Your task to perform on an android device: Go to wifi settings Image 0: 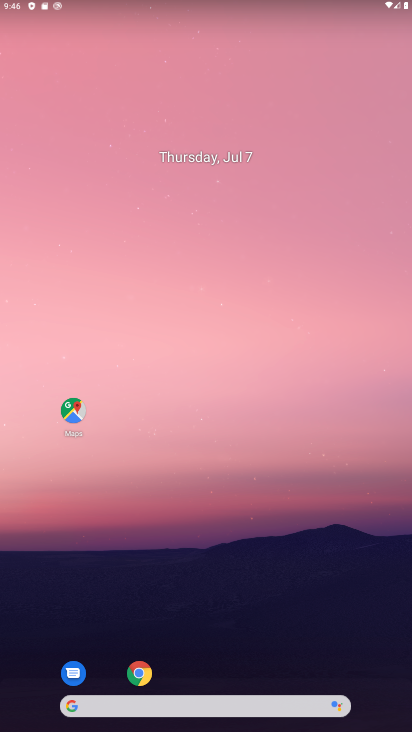
Step 0: click (143, 673)
Your task to perform on an android device: Go to wifi settings Image 1: 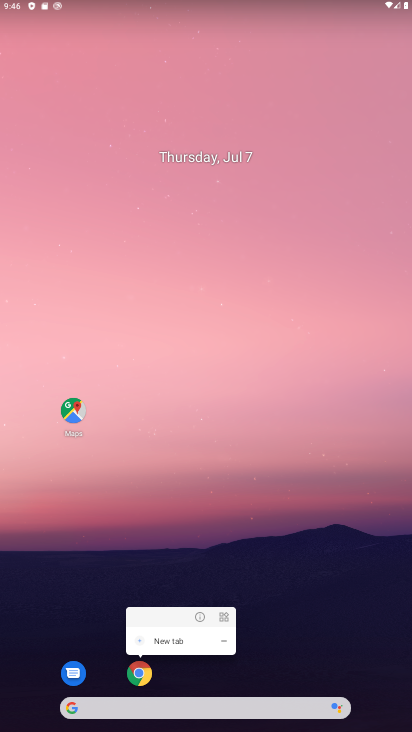
Step 1: click (141, 669)
Your task to perform on an android device: Go to wifi settings Image 2: 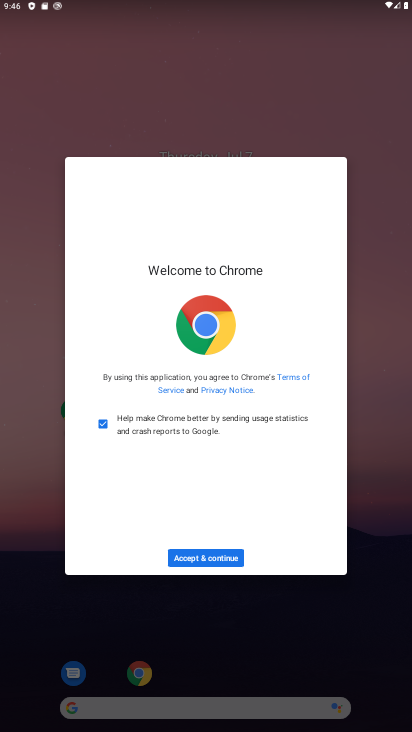
Step 2: click (221, 567)
Your task to perform on an android device: Go to wifi settings Image 3: 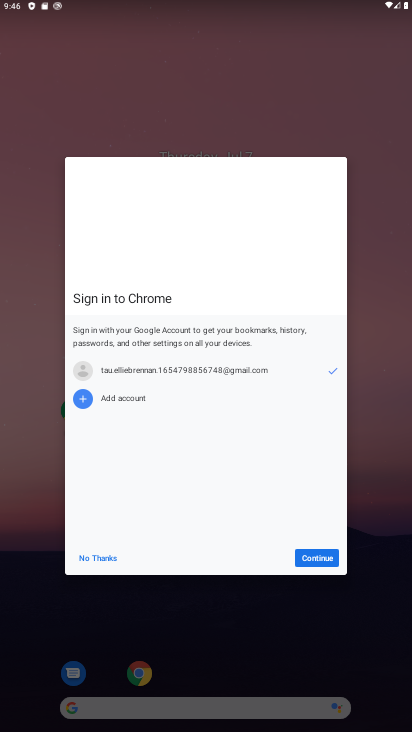
Step 3: click (325, 555)
Your task to perform on an android device: Go to wifi settings Image 4: 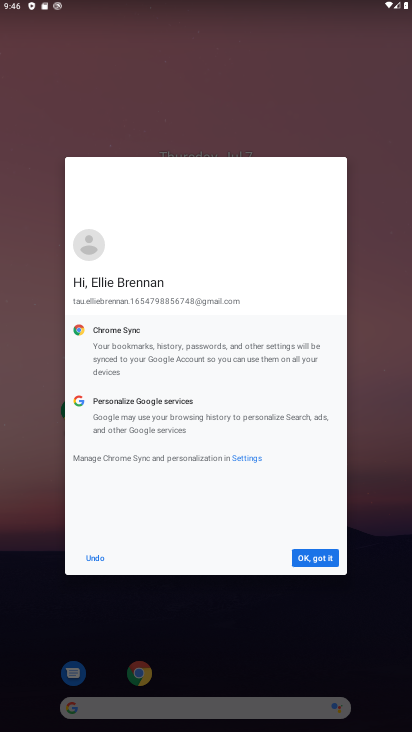
Step 4: click (325, 555)
Your task to perform on an android device: Go to wifi settings Image 5: 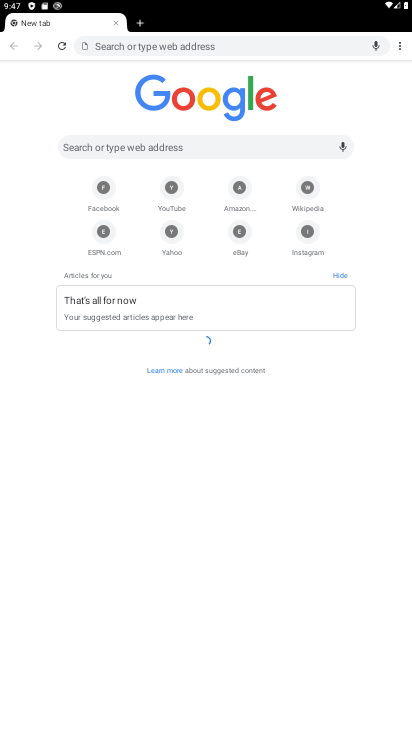
Step 5: click (310, 186)
Your task to perform on an android device: Go to wifi settings Image 6: 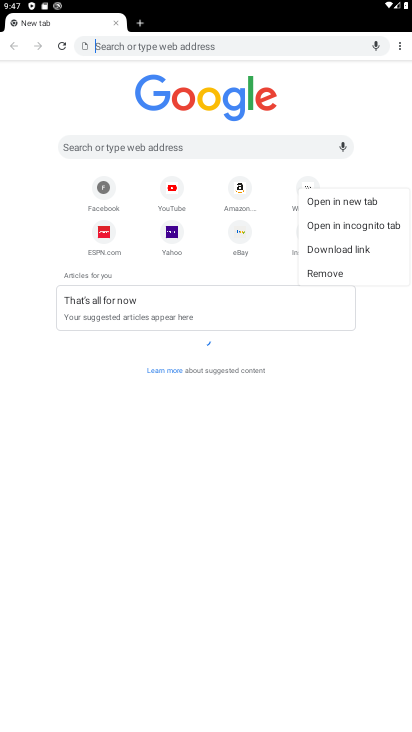
Step 6: click (264, 203)
Your task to perform on an android device: Go to wifi settings Image 7: 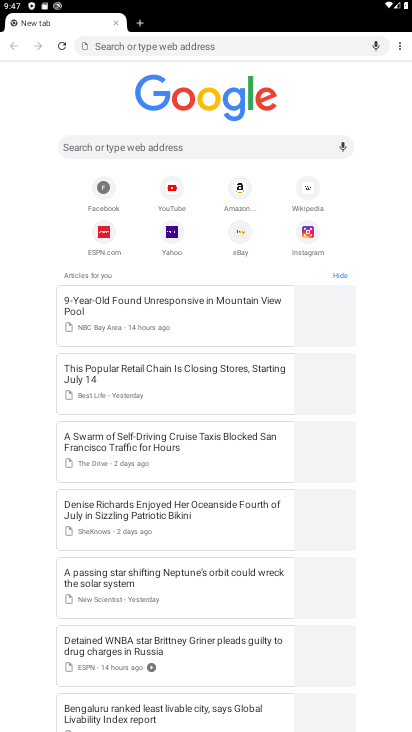
Step 7: click (272, 201)
Your task to perform on an android device: Go to wifi settings Image 8: 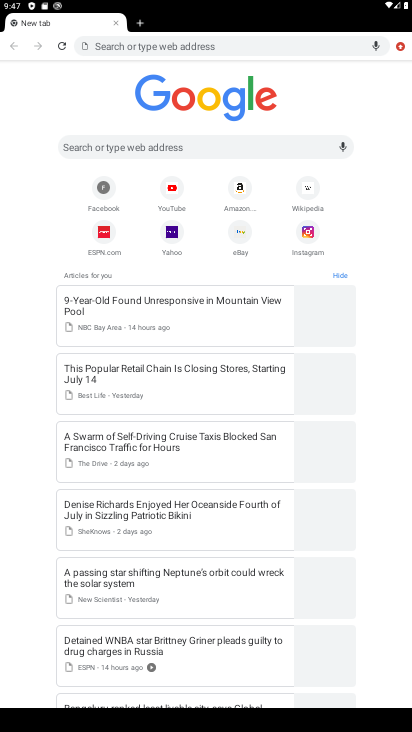
Step 8: click (308, 198)
Your task to perform on an android device: Go to wifi settings Image 9: 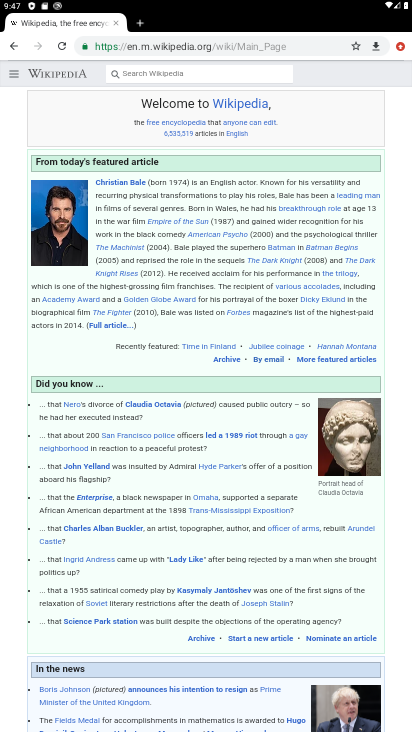
Step 9: task complete